Your task to perform on an android device: What is the recent news? Image 0: 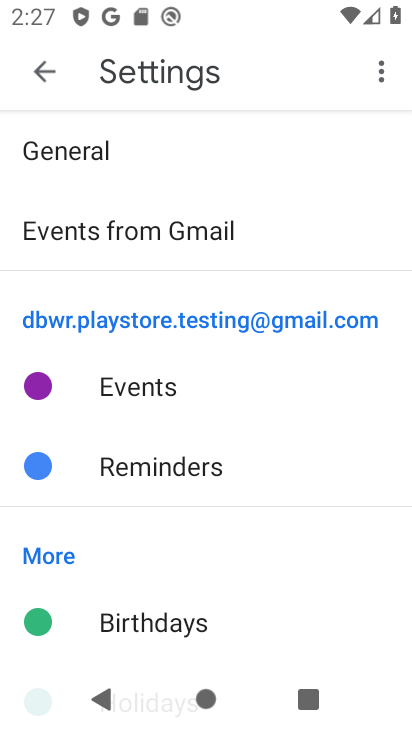
Step 0: press home button
Your task to perform on an android device: What is the recent news? Image 1: 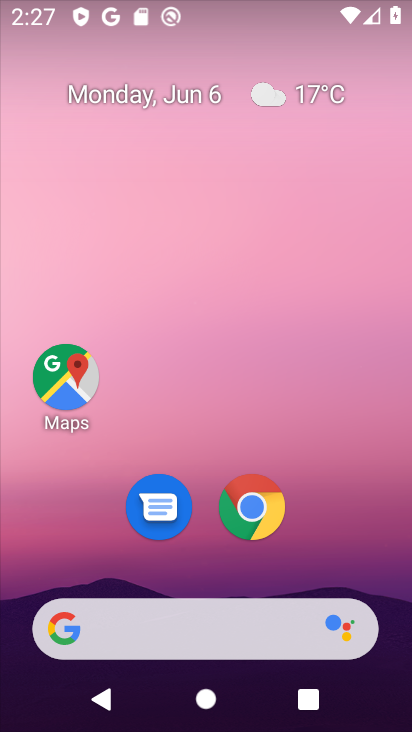
Step 1: task complete